Your task to perform on an android device: Open network settings Image 0: 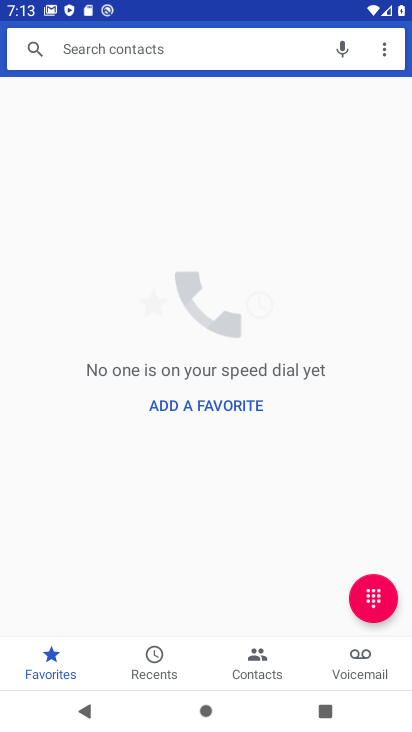
Step 0: press home button
Your task to perform on an android device: Open network settings Image 1: 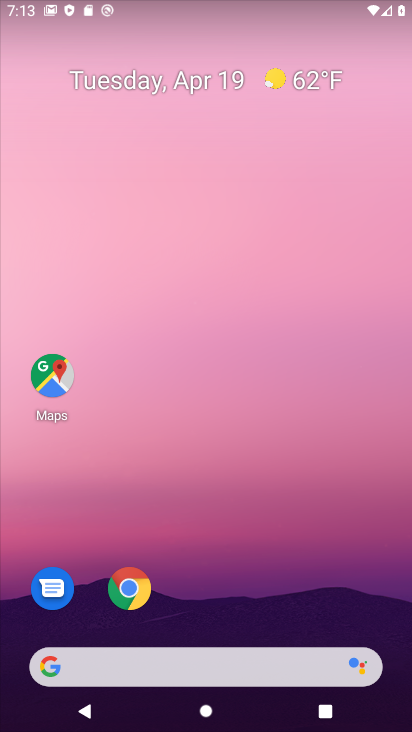
Step 1: click (215, 600)
Your task to perform on an android device: Open network settings Image 2: 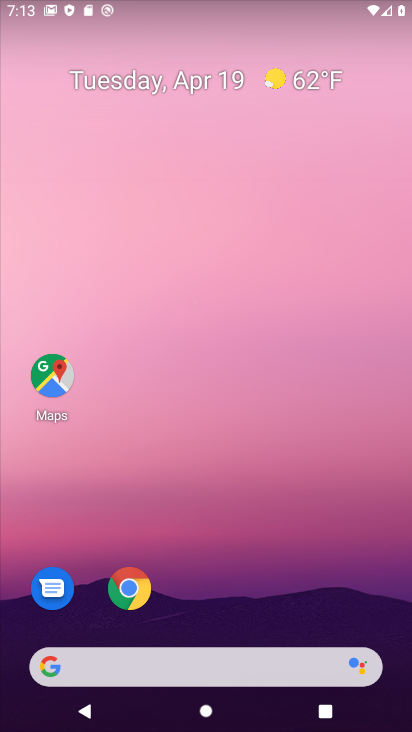
Step 2: drag from (215, 600) to (241, 16)
Your task to perform on an android device: Open network settings Image 3: 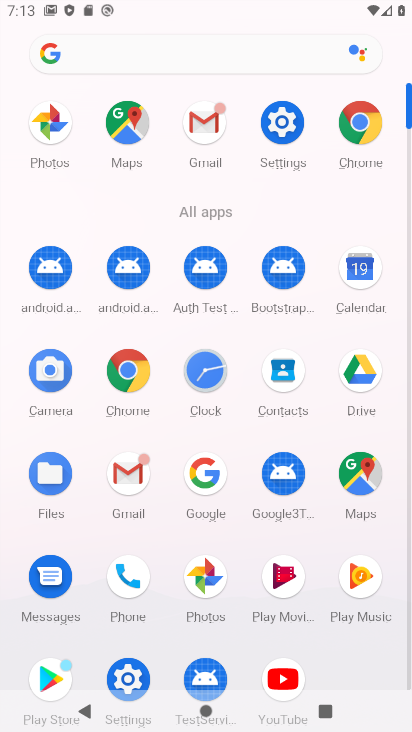
Step 3: click (287, 127)
Your task to perform on an android device: Open network settings Image 4: 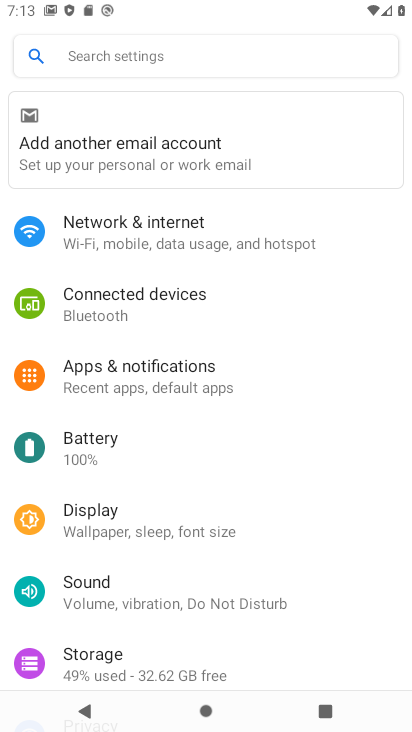
Step 4: click (107, 235)
Your task to perform on an android device: Open network settings Image 5: 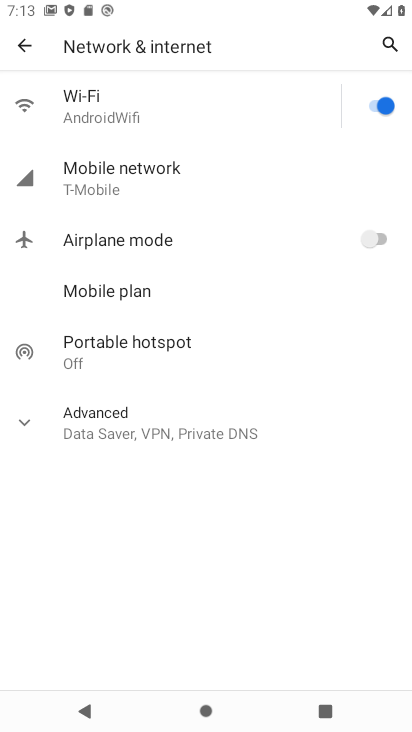
Step 5: click (139, 171)
Your task to perform on an android device: Open network settings Image 6: 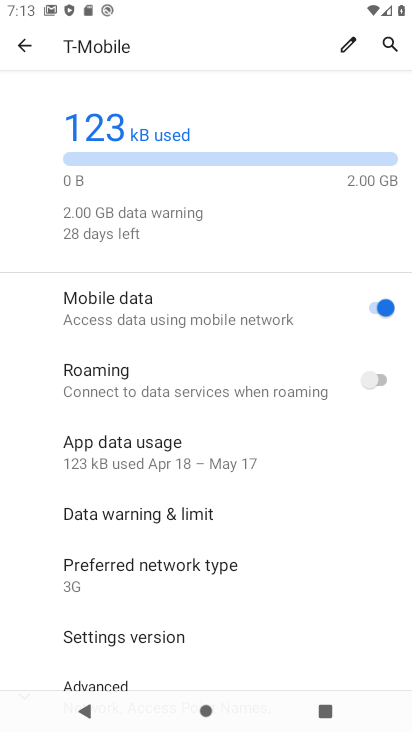
Step 6: task complete